Your task to perform on an android device: change the clock display to digital Image 0: 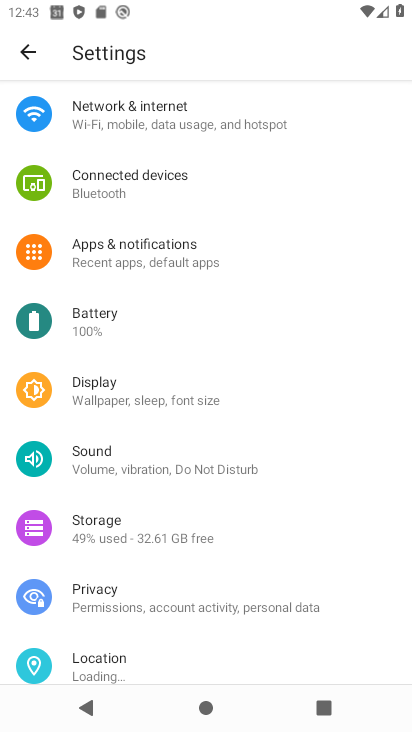
Step 0: press home button
Your task to perform on an android device: change the clock display to digital Image 1: 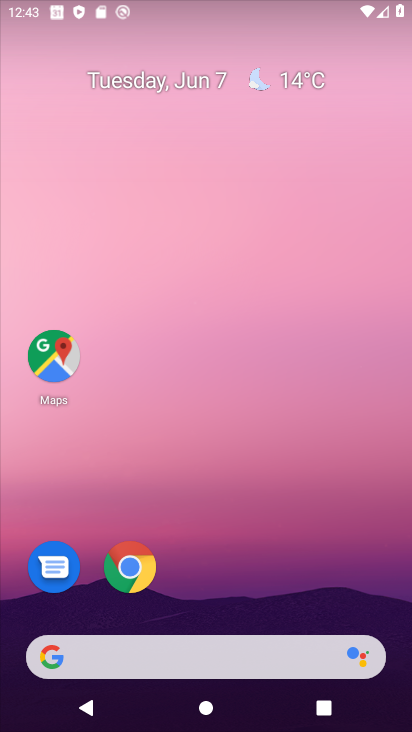
Step 1: drag from (274, 608) to (253, 88)
Your task to perform on an android device: change the clock display to digital Image 2: 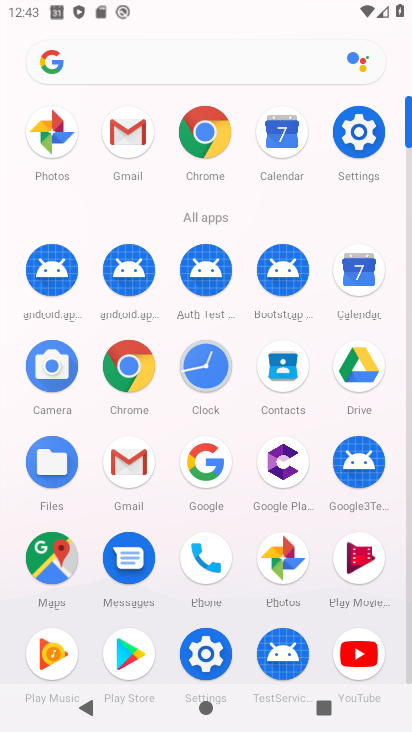
Step 2: click (203, 372)
Your task to perform on an android device: change the clock display to digital Image 3: 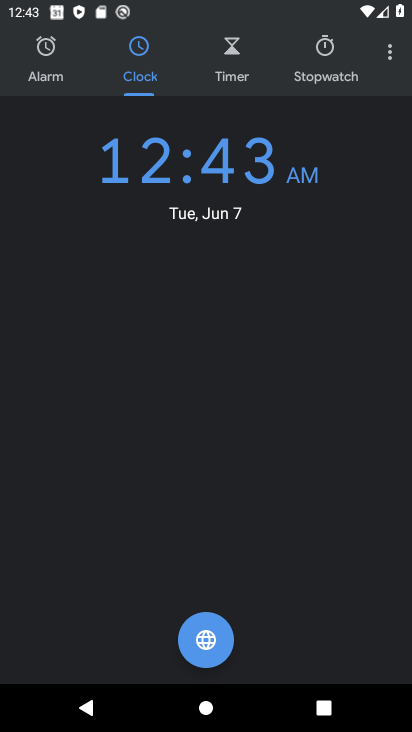
Step 3: click (383, 56)
Your task to perform on an android device: change the clock display to digital Image 4: 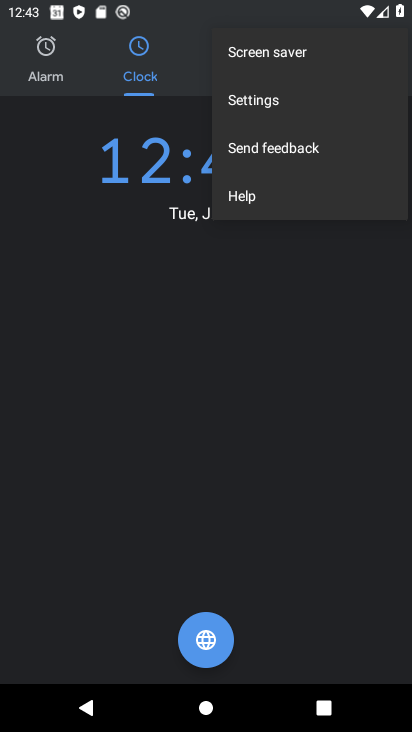
Step 4: click (304, 98)
Your task to perform on an android device: change the clock display to digital Image 5: 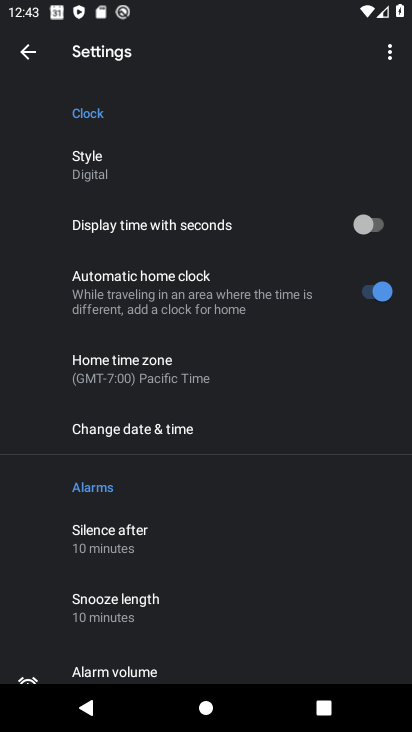
Step 5: click (111, 153)
Your task to perform on an android device: change the clock display to digital Image 6: 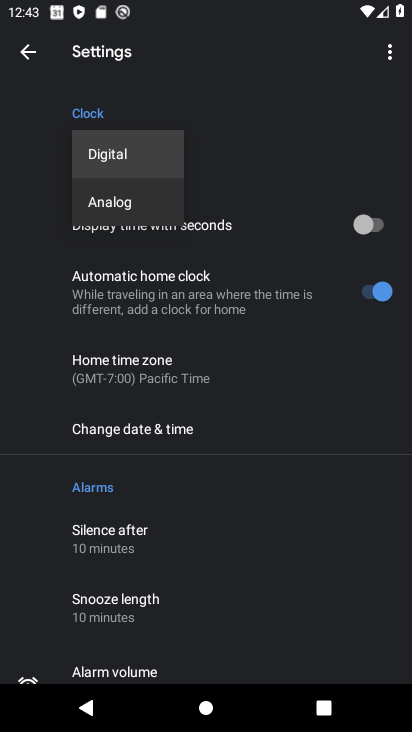
Step 6: click (134, 154)
Your task to perform on an android device: change the clock display to digital Image 7: 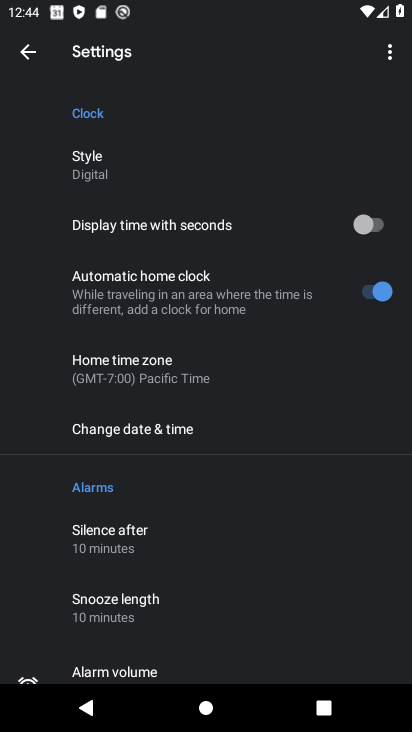
Step 7: task complete